Your task to perform on an android device: turn vacation reply on in the gmail app Image 0: 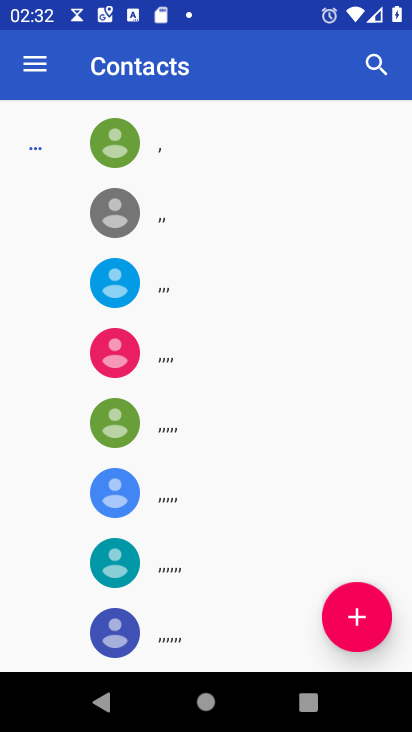
Step 0: press home button
Your task to perform on an android device: turn vacation reply on in the gmail app Image 1: 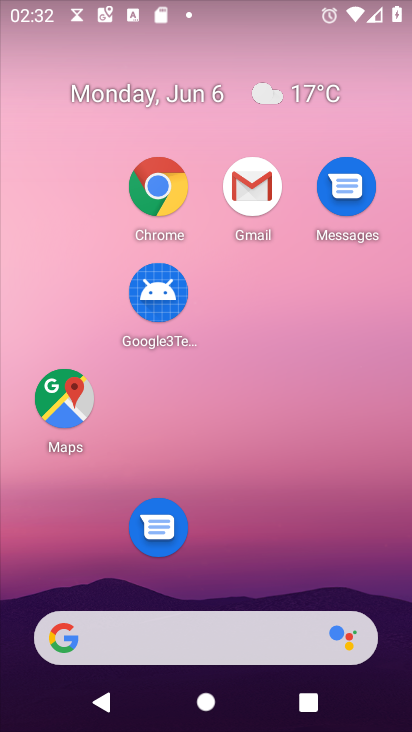
Step 1: click (258, 209)
Your task to perform on an android device: turn vacation reply on in the gmail app Image 2: 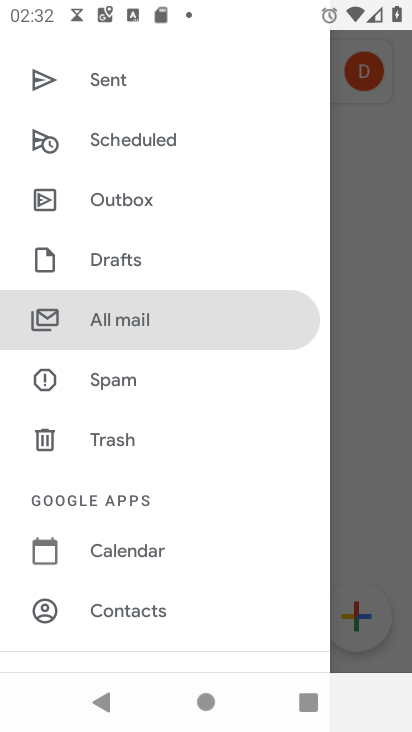
Step 2: drag from (185, 612) to (246, 213)
Your task to perform on an android device: turn vacation reply on in the gmail app Image 3: 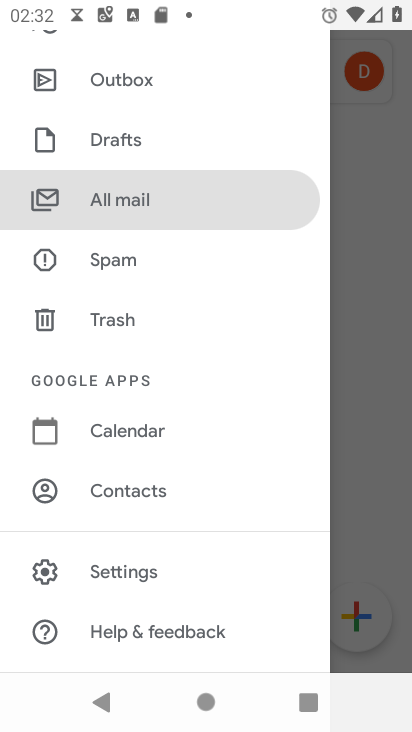
Step 3: click (111, 558)
Your task to perform on an android device: turn vacation reply on in the gmail app Image 4: 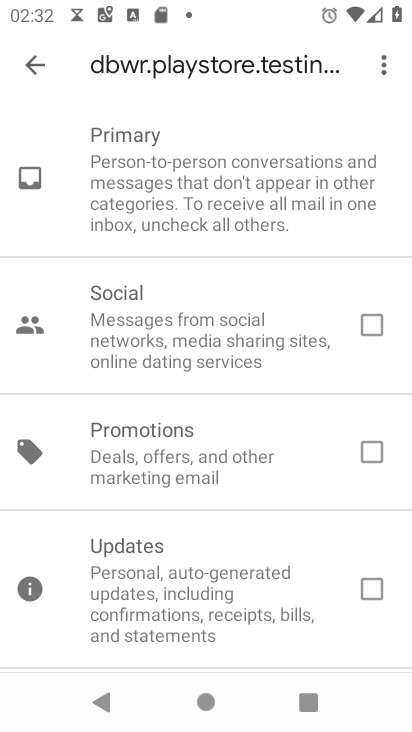
Step 4: click (44, 61)
Your task to perform on an android device: turn vacation reply on in the gmail app Image 5: 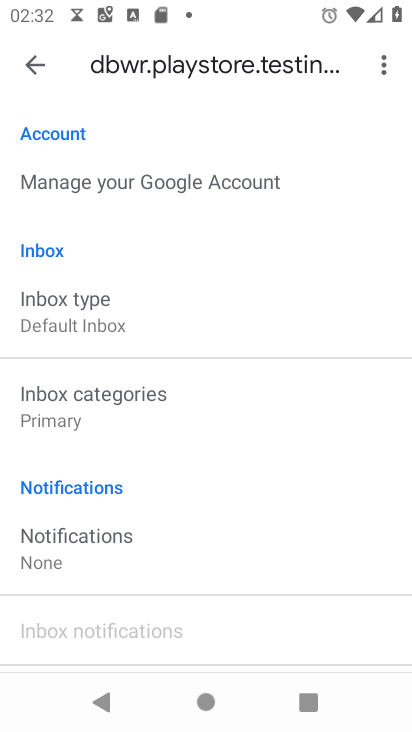
Step 5: drag from (223, 91) to (213, 498)
Your task to perform on an android device: turn vacation reply on in the gmail app Image 6: 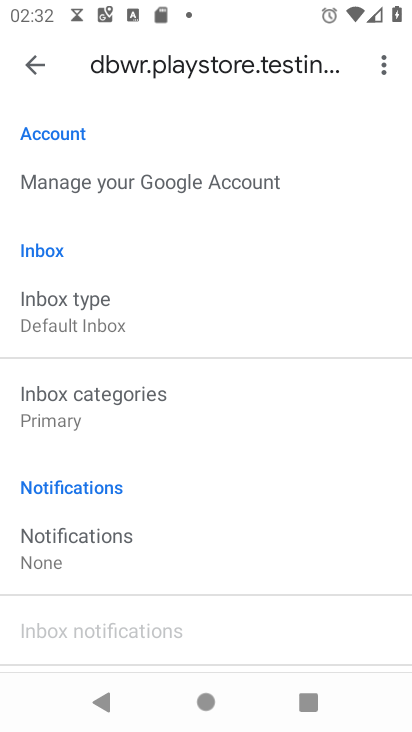
Step 6: click (26, 66)
Your task to perform on an android device: turn vacation reply on in the gmail app Image 7: 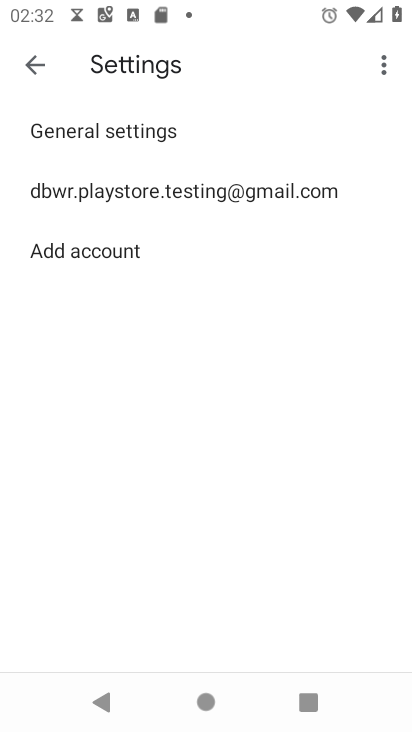
Step 7: click (147, 119)
Your task to perform on an android device: turn vacation reply on in the gmail app Image 8: 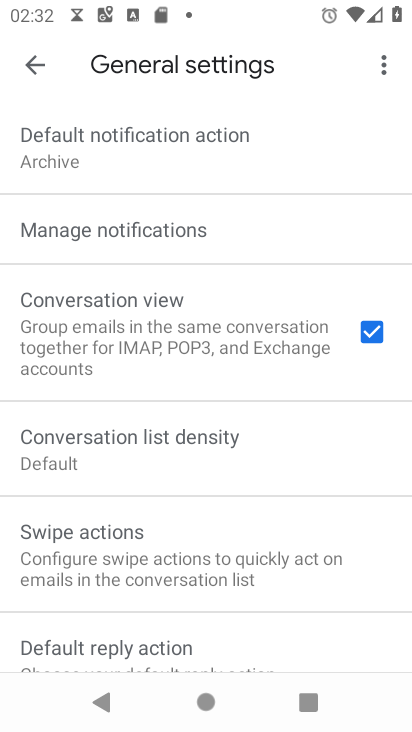
Step 8: click (366, 613)
Your task to perform on an android device: turn vacation reply on in the gmail app Image 9: 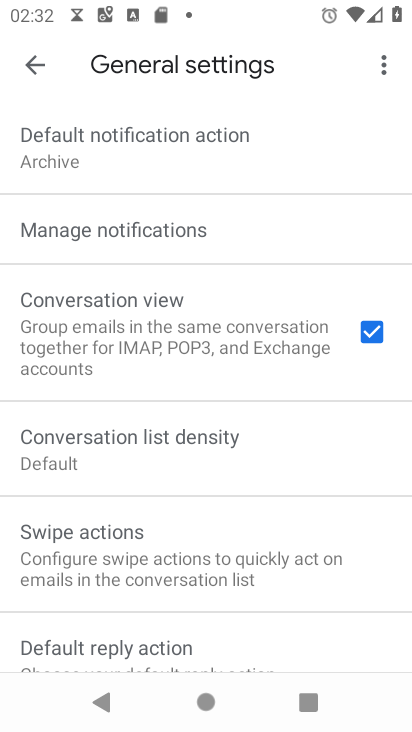
Step 9: task complete